Your task to perform on an android device: Open CNN.com Image 0: 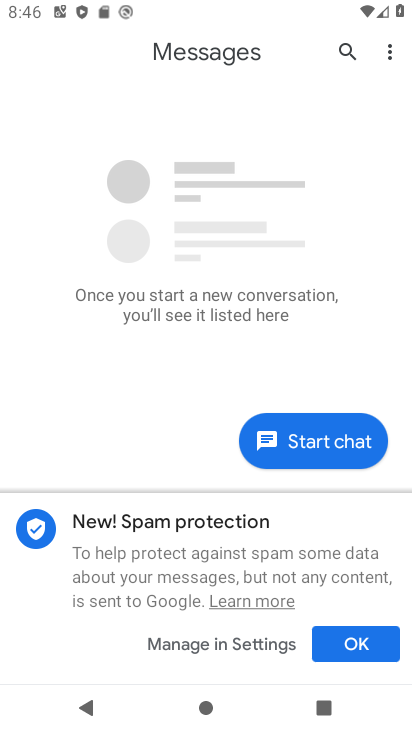
Step 0: press home button
Your task to perform on an android device: Open CNN.com Image 1: 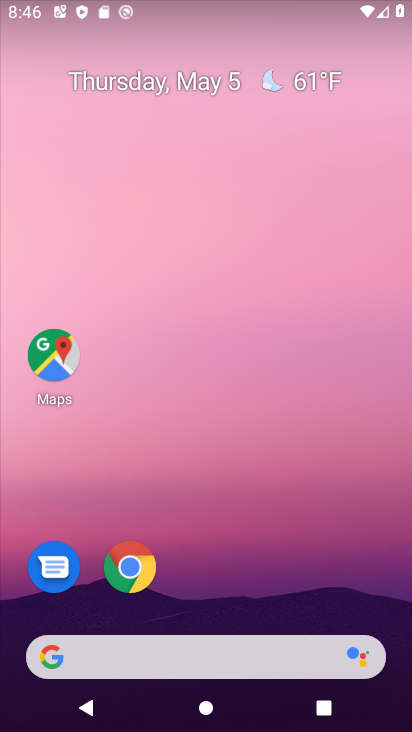
Step 1: click (174, 654)
Your task to perform on an android device: Open CNN.com Image 2: 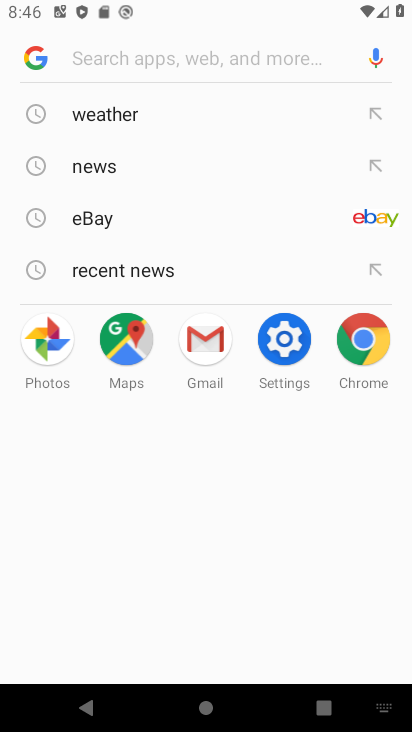
Step 2: type "CNN.com"
Your task to perform on an android device: Open CNN.com Image 3: 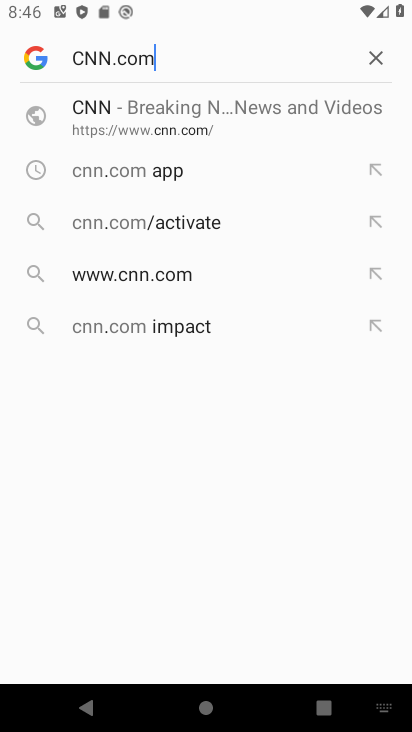
Step 3: click (196, 130)
Your task to perform on an android device: Open CNN.com Image 4: 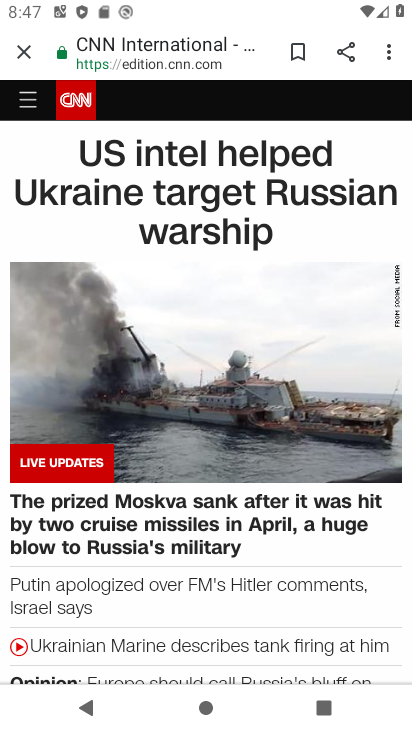
Step 4: task complete